Your task to perform on an android device: all mails in gmail Image 0: 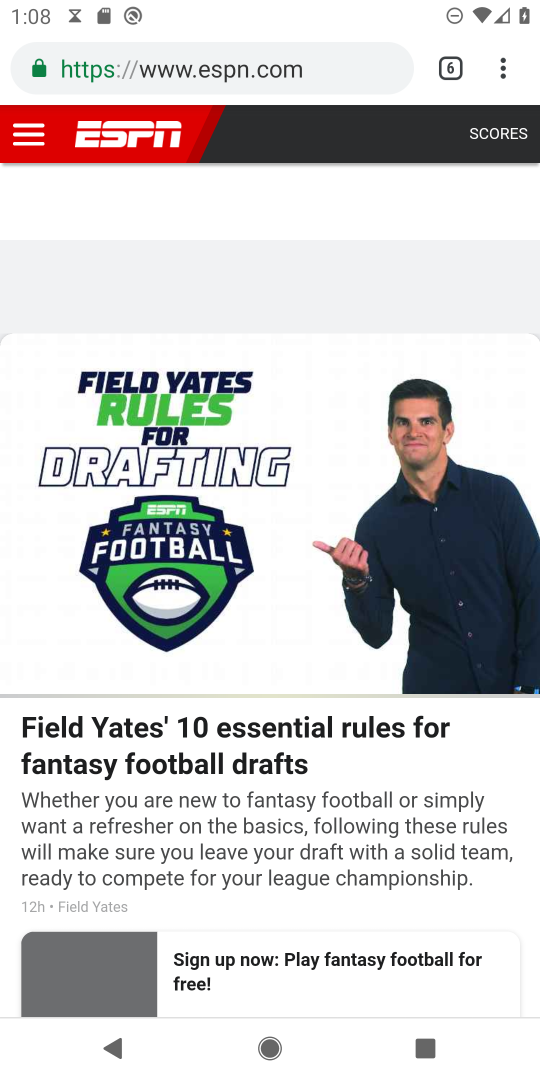
Step 0: press back button
Your task to perform on an android device: all mails in gmail Image 1: 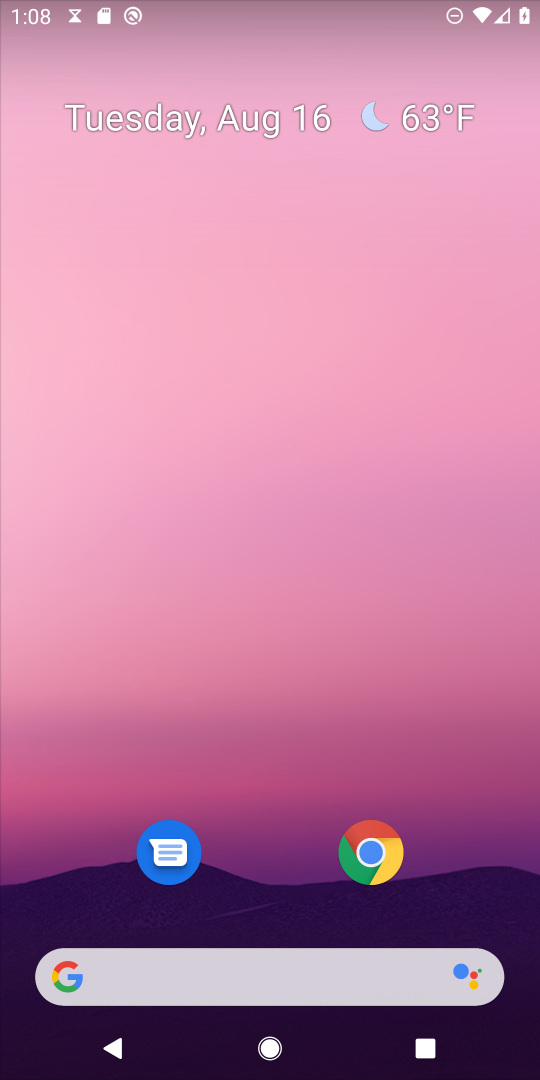
Step 1: drag from (288, 906) to (394, 55)
Your task to perform on an android device: all mails in gmail Image 2: 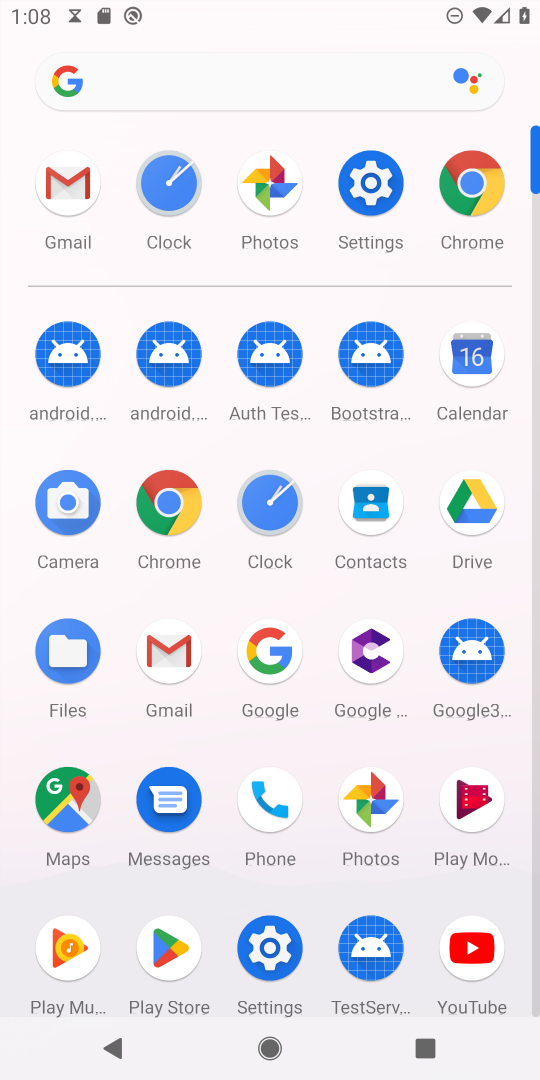
Step 2: click (74, 181)
Your task to perform on an android device: all mails in gmail Image 3: 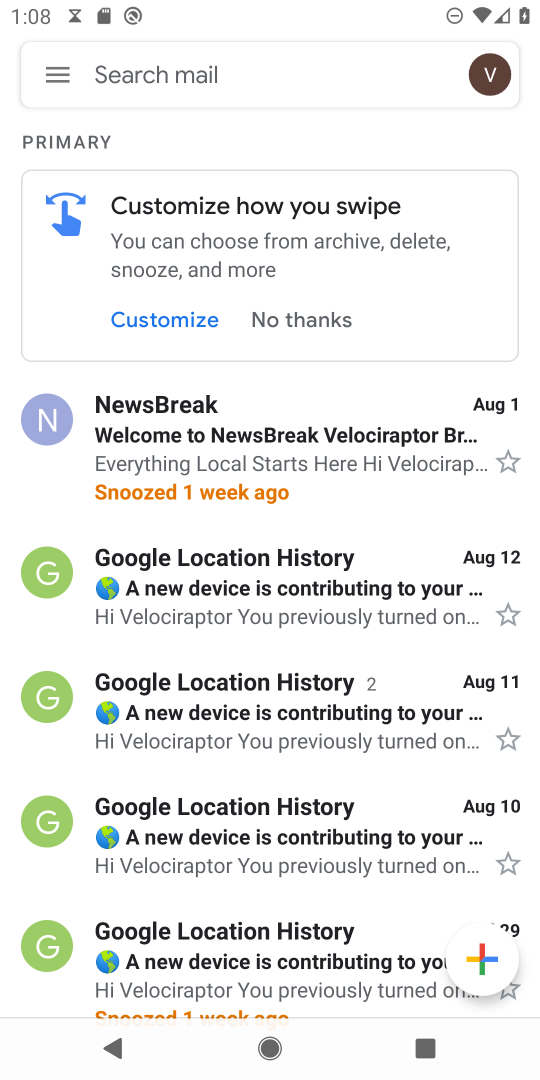
Step 3: click (59, 74)
Your task to perform on an android device: all mails in gmail Image 4: 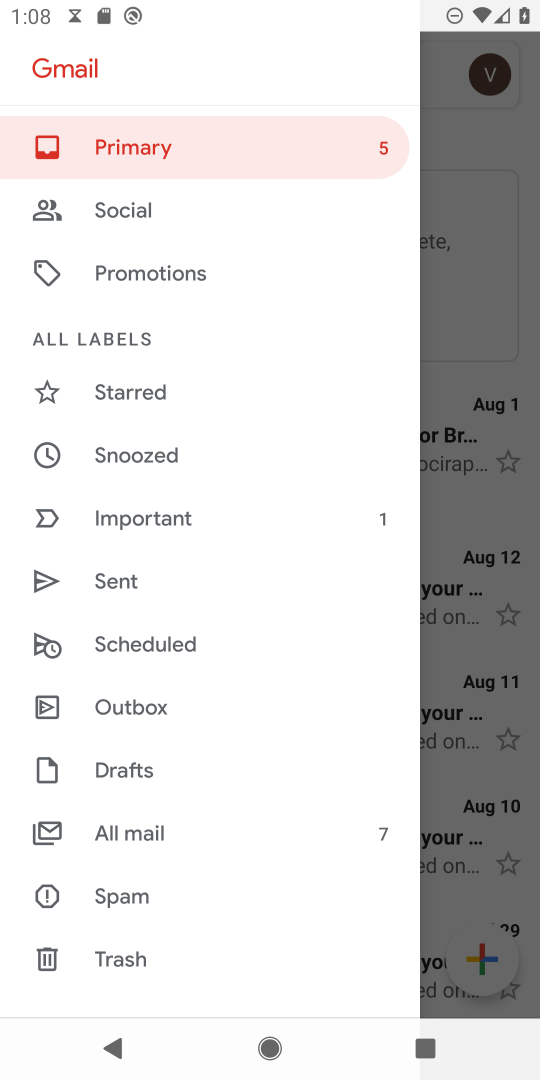
Step 4: click (153, 850)
Your task to perform on an android device: all mails in gmail Image 5: 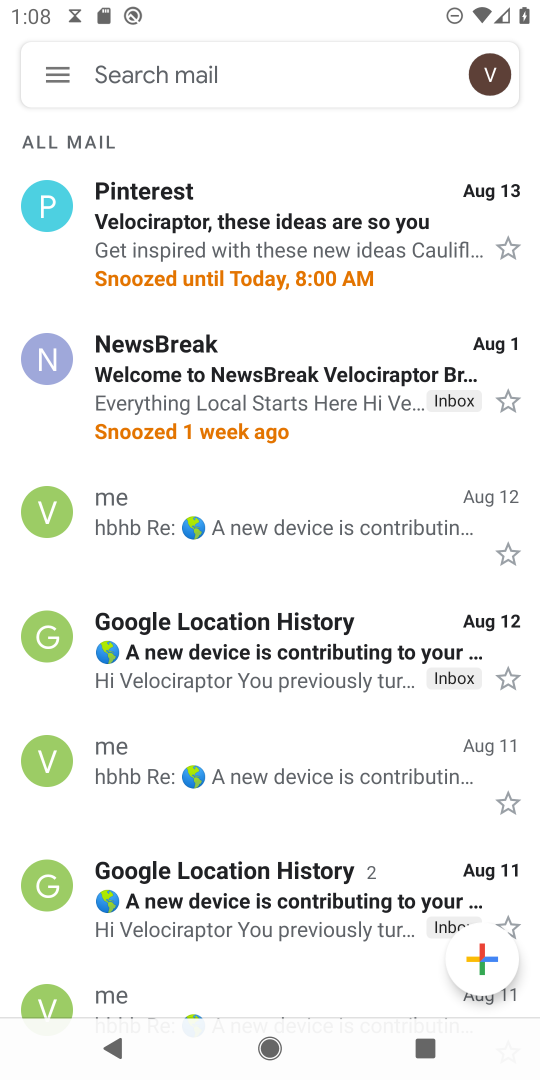
Step 5: task complete